Your task to perform on an android device: Check the weather Image 0: 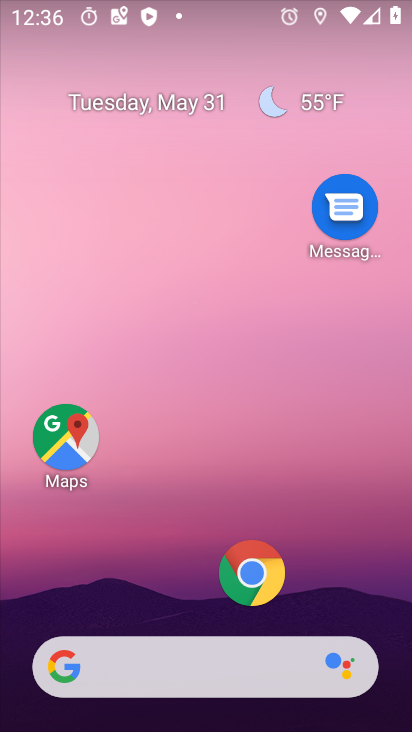
Step 0: click (146, 661)
Your task to perform on an android device: Check the weather Image 1: 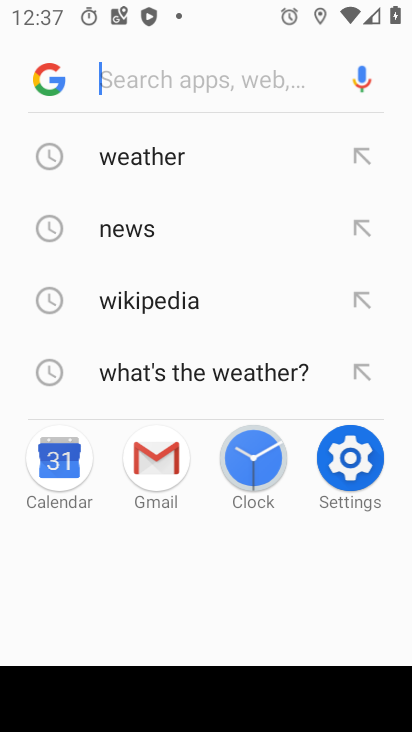
Step 1: type "weather"
Your task to perform on an android device: Check the weather Image 2: 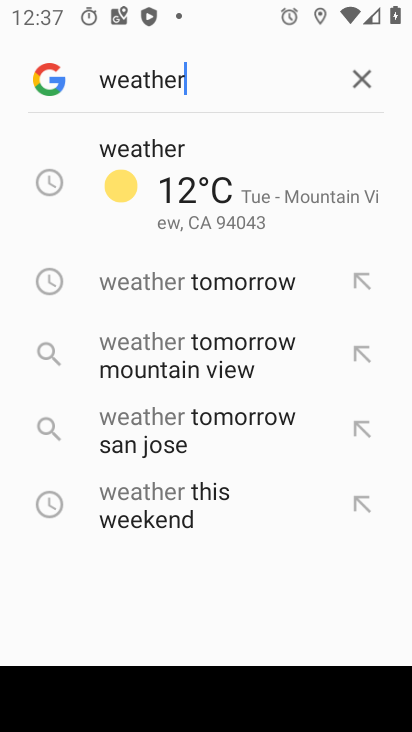
Step 2: click (231, 164)
Your task to perform on an android device: Check the weather Image 3: 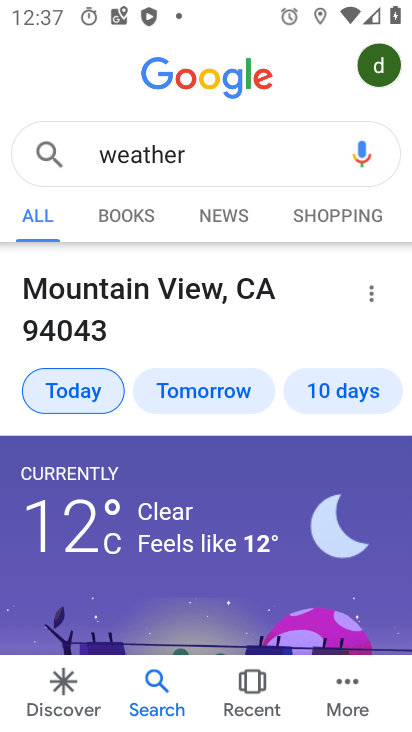
Step 3: task complete